Your task to perform on an android device: Open settings on Google Maps Image 0: 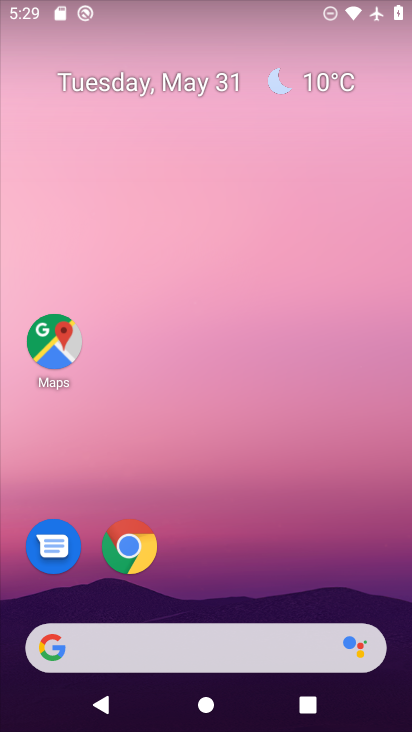
Step 0: drag from (278, 544) to (124, 51)
Your task to perform on an android device: Open settings on Google Maps Image 1: 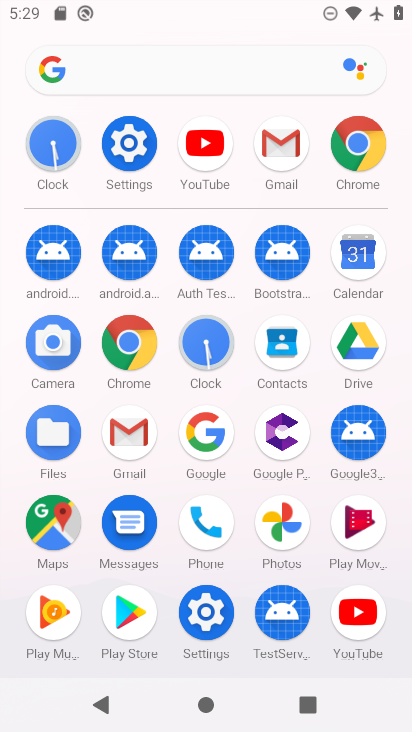
Step 1: click (65, 533)
Your task to perform on an android device: Open settings on Google Maps Image 2: 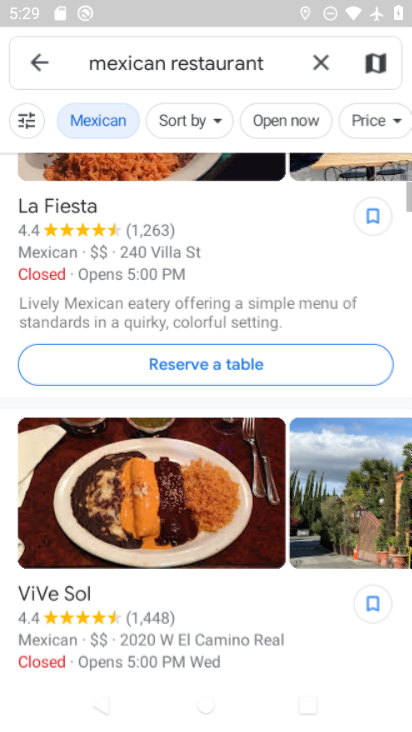
Step 2: click (52, 66)
Your task to perform on an android device: Open settings on Google Maps Image 3: 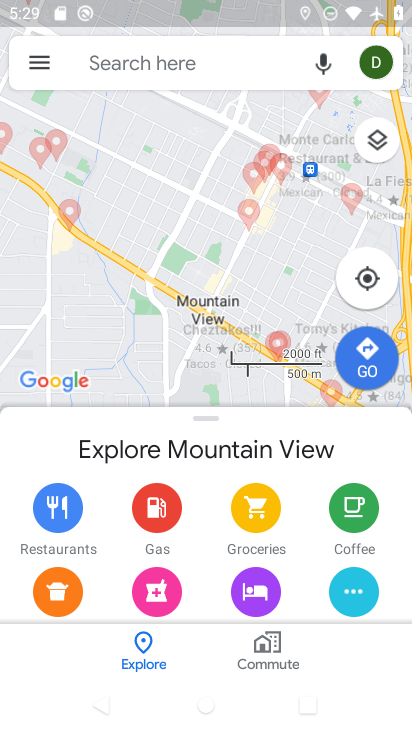
Step 3: click (50, 64)
Your task to perform on an android device: Open settings on Google Maps Image 4: 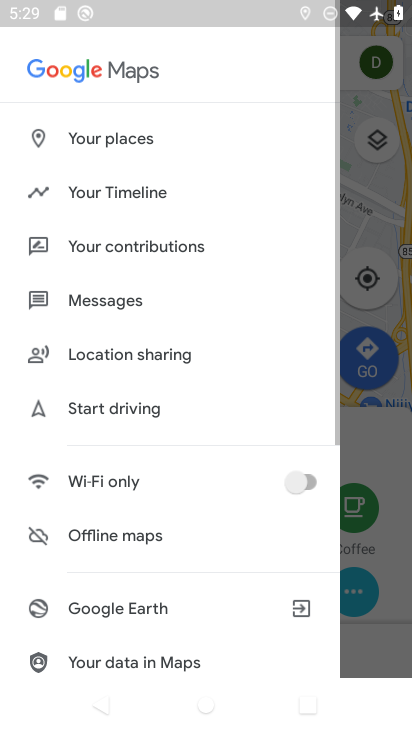
Step 4: drag from (125, 570) to (120, 83)
Your task to perform on an android device: Open settings on Google Maps Image 5: 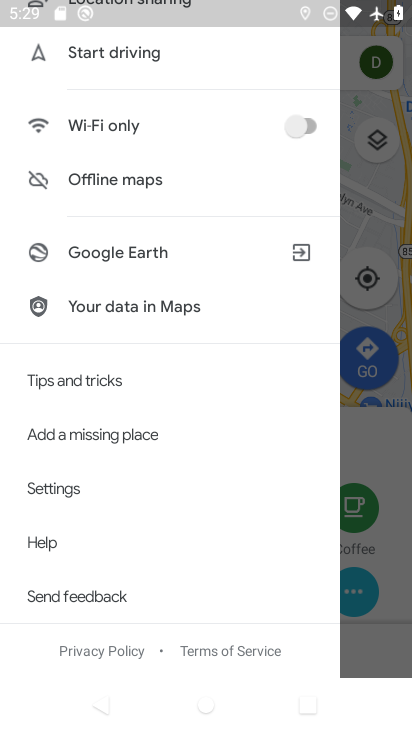
Step 5: click (76, 485)
Your task to perform on an android device: Open settings on Google Maps Image 6: 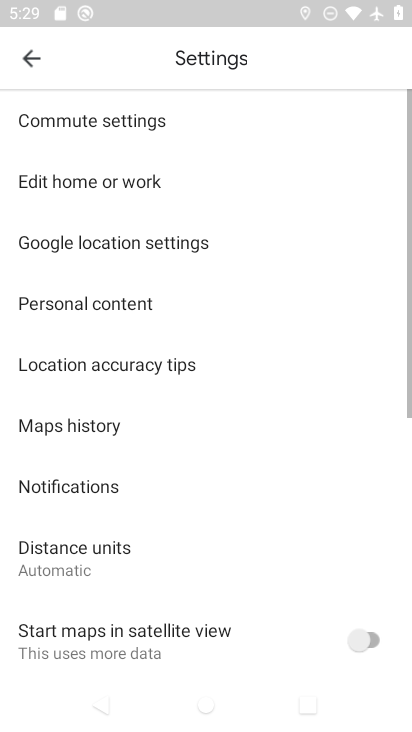
Step 6: task complete